Your task to perform on an android device: Open ESPN.com Image 0: 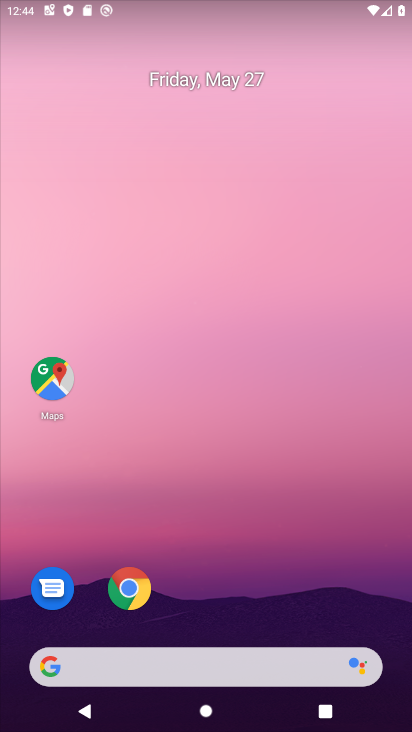
Step 0: drag from (198, 639) to (307, 34)
Your task to perform on an android device: Open ESPN.com Image 1: 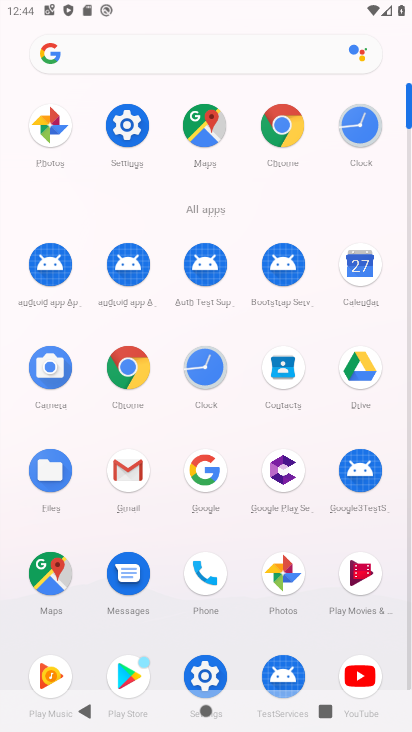
Step 1: click (124, 384)
Your task to perform on an android device: Open ESPN.com Image 2: 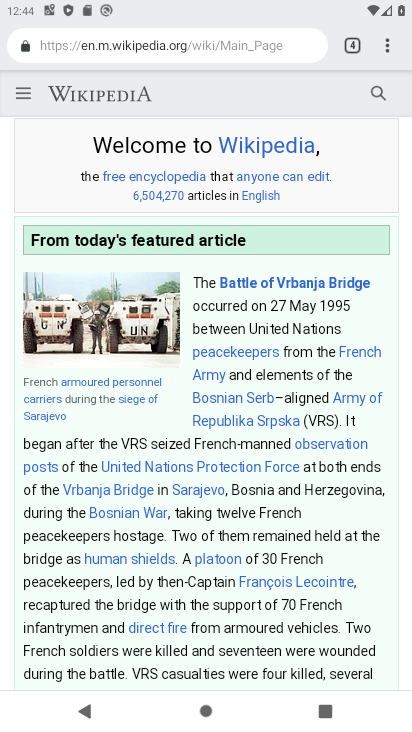
Step 2: click (349, 40)
Your task to perform on an android device: Open ESPN.com Image 3: 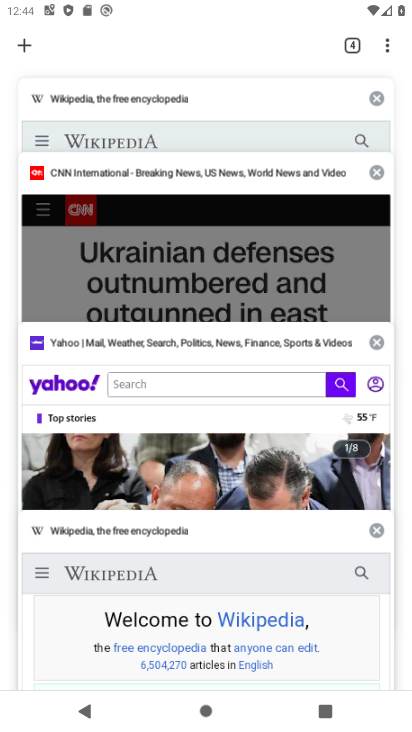
Step 3: click (13, 36)
Your task to perform on an android device: Open ESPN.com Image 4: 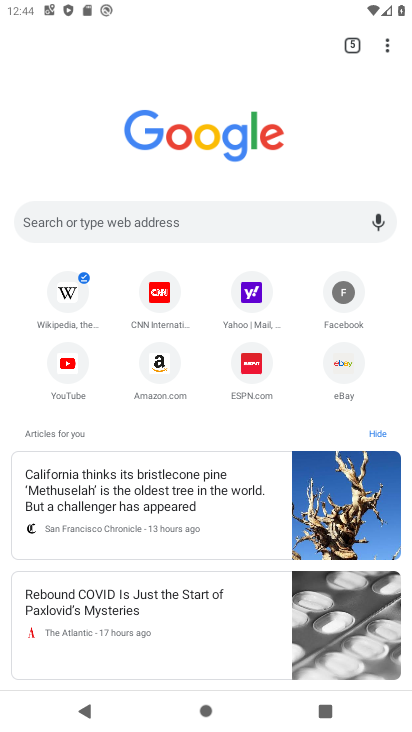
Step 4: click (264, 360)
Your task to perform on an android device: Open ESPN.com Image 5: 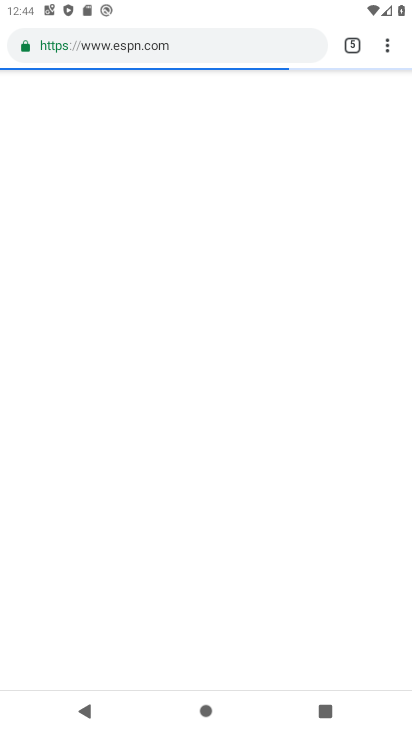
Step 5: task complete